Your task to perform on an android device: install app "Microsoft Outlook" Image 0: 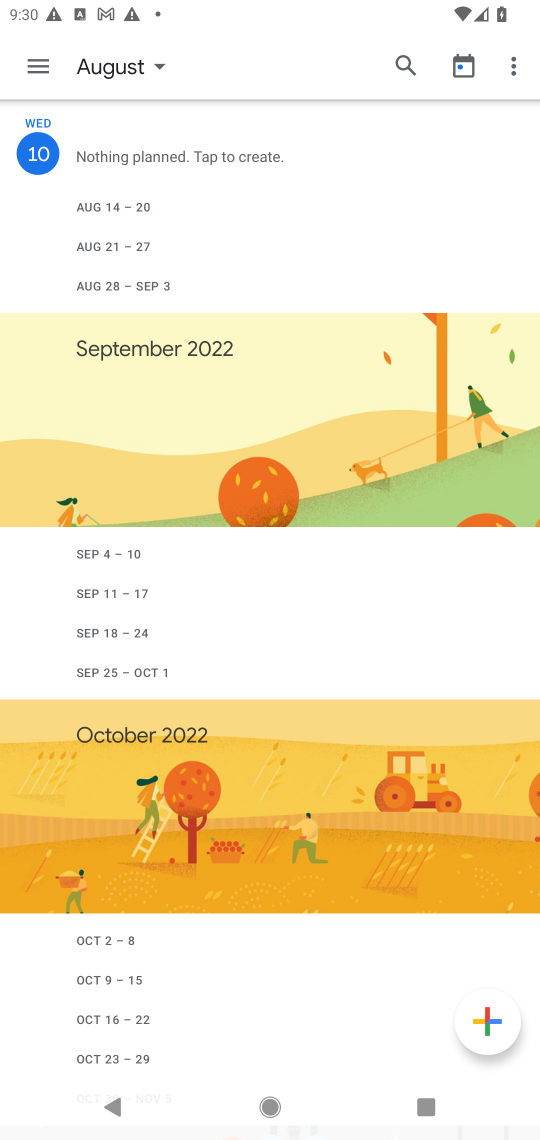
Step 0: press home button
Your task to perform on an android device: install app "Microsoft Outlook" Image 1: 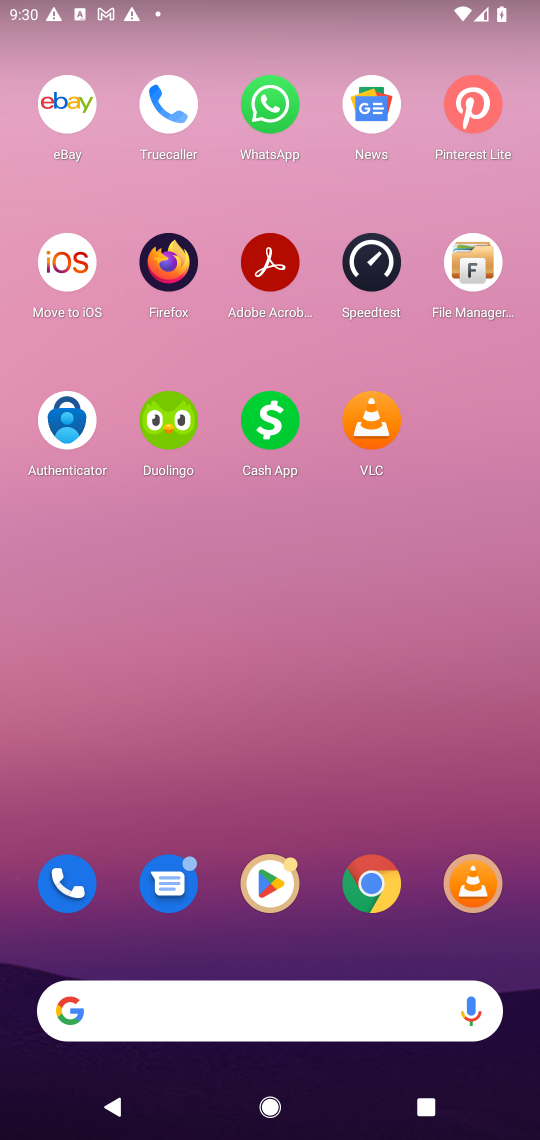
Step 1: click (252, 882)
Your task to perform on an android device: install app "Microsoft Outlook" Image 2: 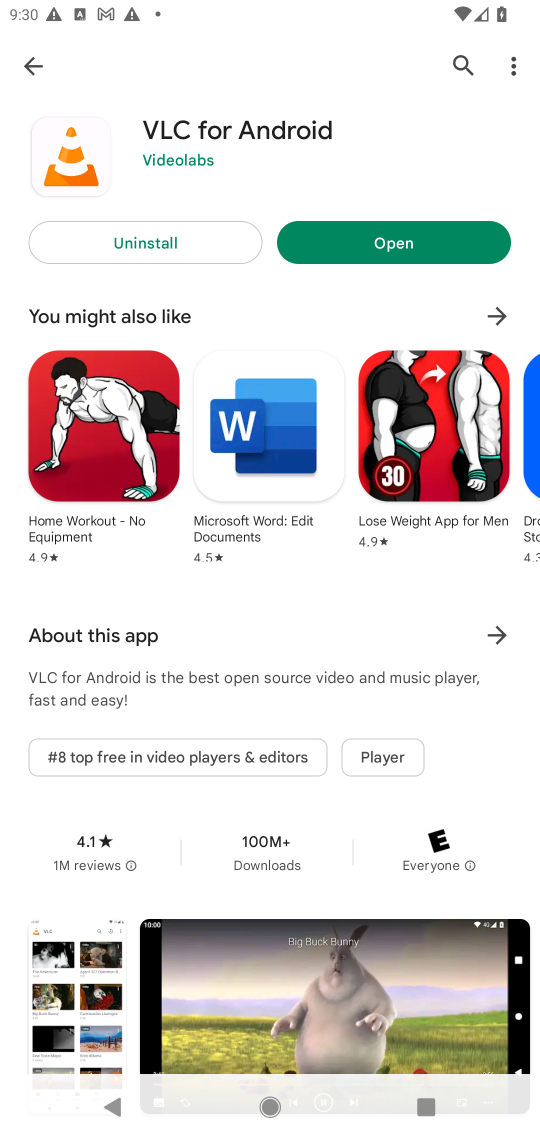
Step 2: click (474, 59)
Your task to perform on an android device: install app "Microsoft Outlook" Image 3: 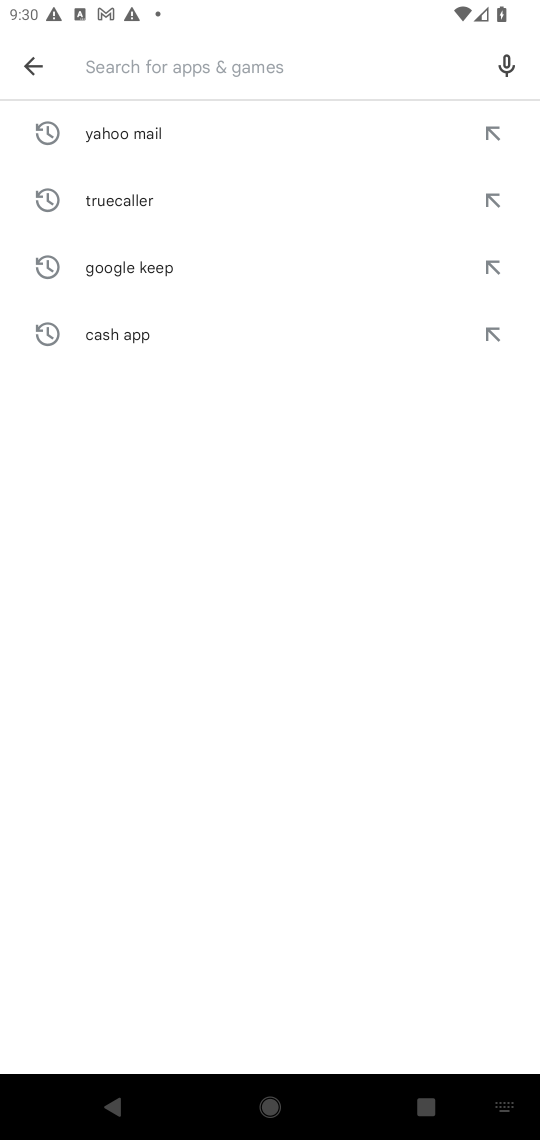
Step 3: type "Microsoft Outlook"
Your task to perform on an android device: install app "Microsoft Outlook" Image 4: 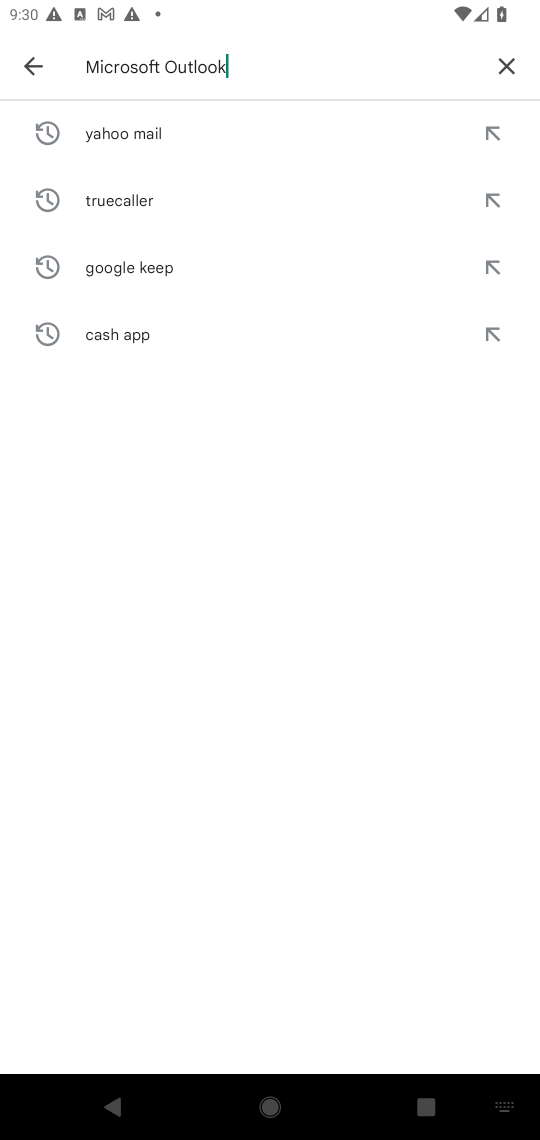
Step 4: type ""
Your task to perform on an android device: install app "Microsoft Outlook" Image 5: 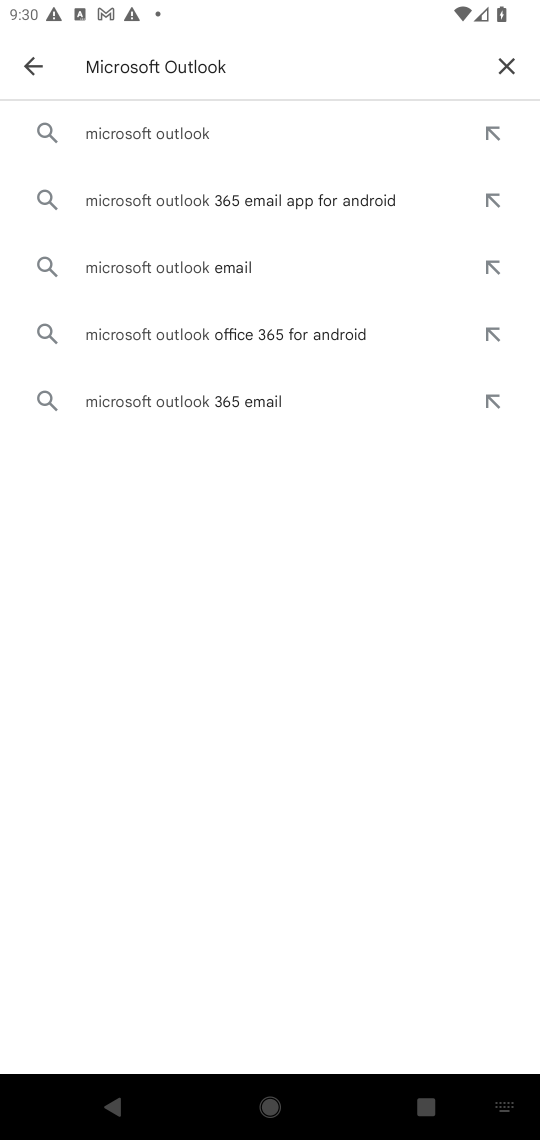
Step 5: click (154, 133)
Your task to perform on an android device: install app "Microsoft Outlook" Image 6: 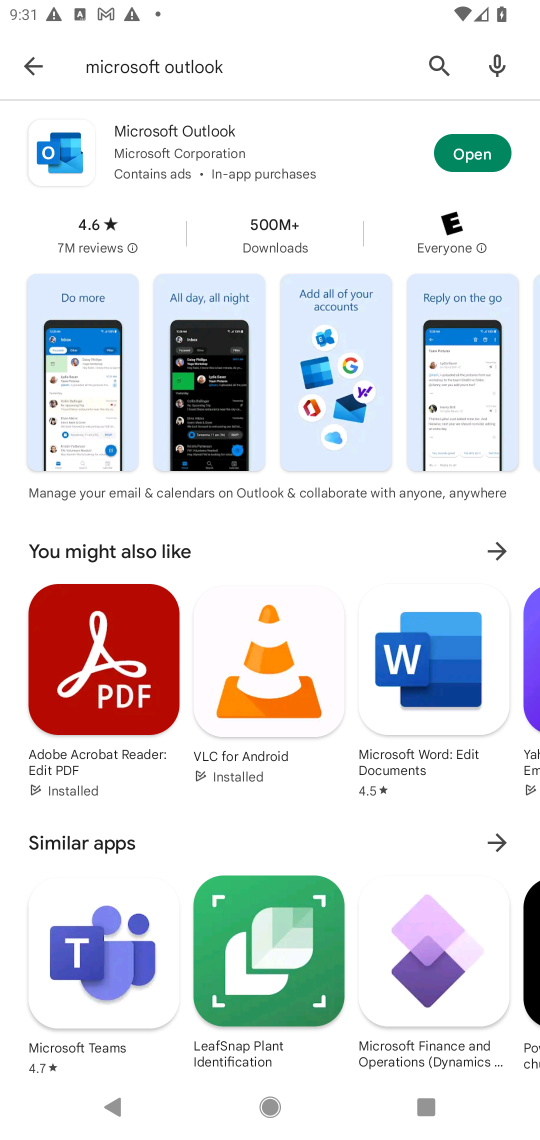
Step 6: click (245, 141)
Your task to perform on an android device: install app "Microsoft Outlook" Image 7: 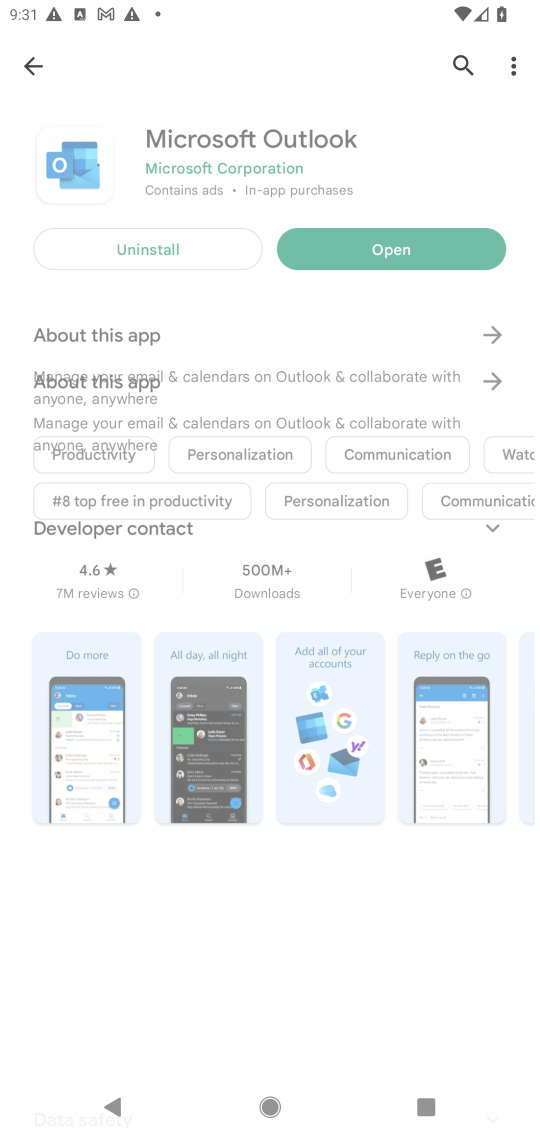
Step 7: task complete